Your task to perform on an android device: check battery use Image 0: 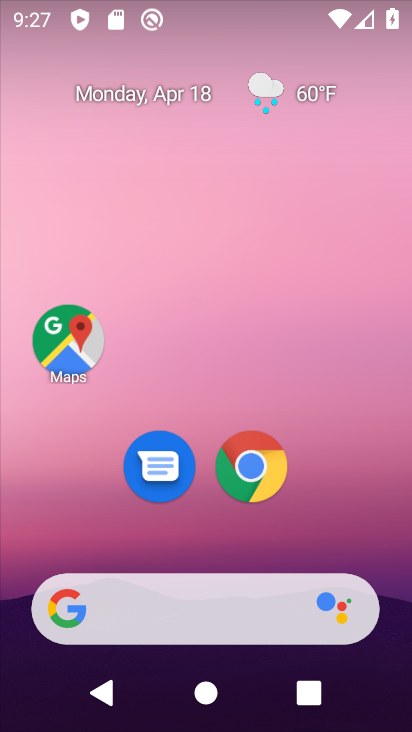
Step 0: drag from (226, 546) to (276, 15)
Your task to perform on an android device: check battery use Image 1: 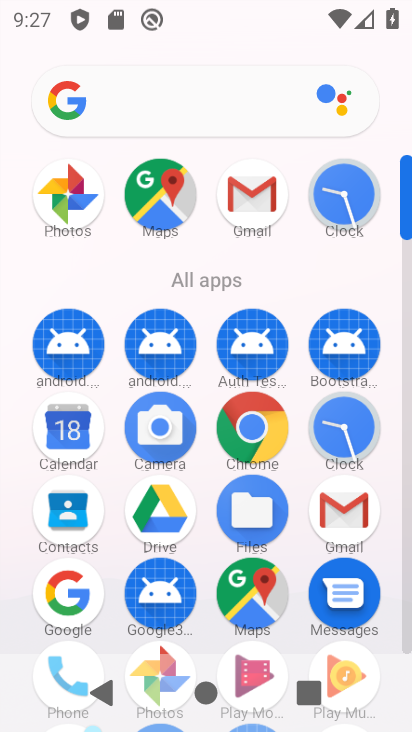
Step 1: drag from (297, 633) to (299, 245)
Your task to perform on an android device: check battery use Image 2: 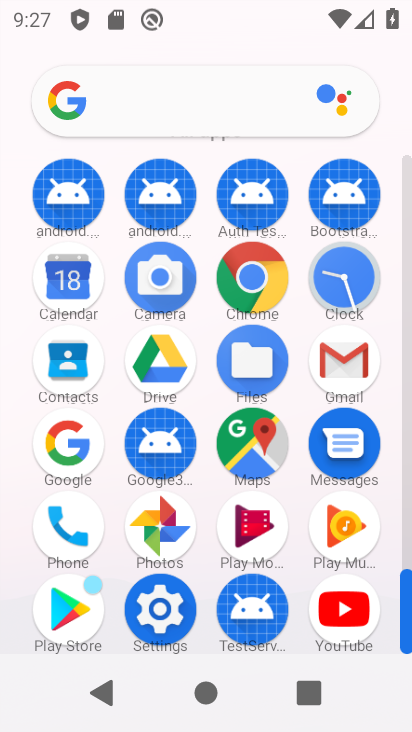
Step 2: click (169, 614)
Your task to perform on an android device: check battery use Image 3: 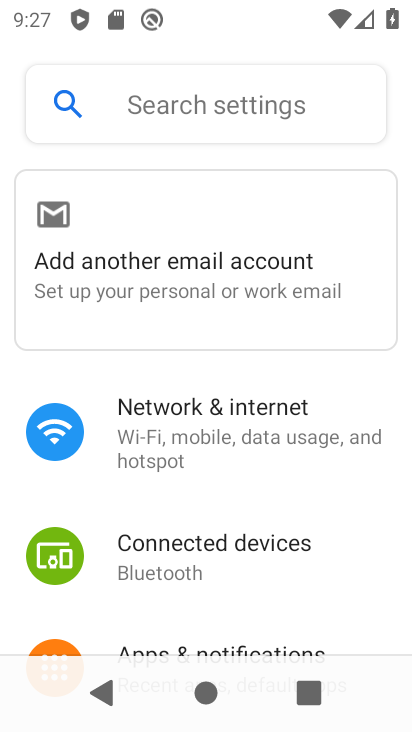
Step 3: drag from (200, 628) to (241, 258)
Your task to perform on an android device: check battery use Image 4: 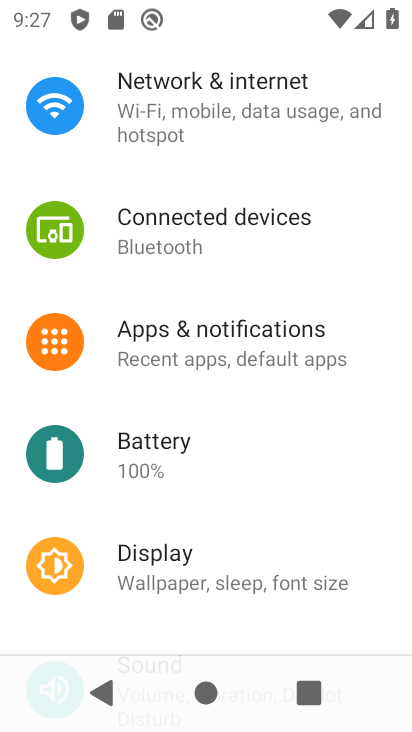
Step 4: click (218, 463)
Your task to perform on an android device: check battery use Image 5: 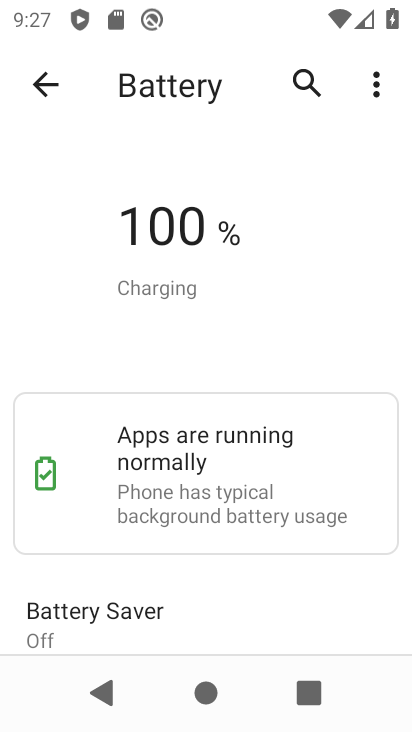
Step 5: drag from (198, 613) to (236, 196)
Your task to perform on an android device: check battery use Image 6: 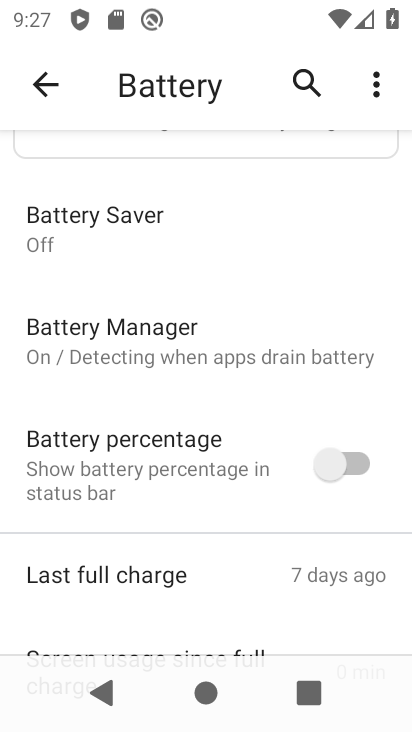
Step 6: drag from (172, 613) to (218, 243)
Your task to perform on an android device: check battery use Image 7: 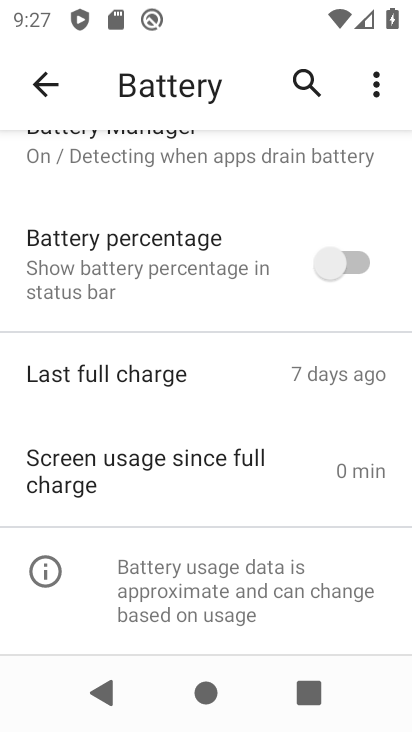
Step 7: click (187, 615)
Your task to perform on an android device: check battery use Image 8: 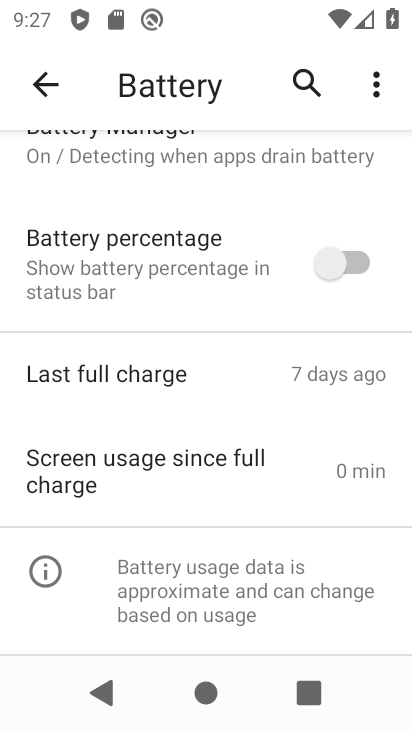
Step 8: click (40, 573)
Your task to perform on an android device: check battery use Image 9: 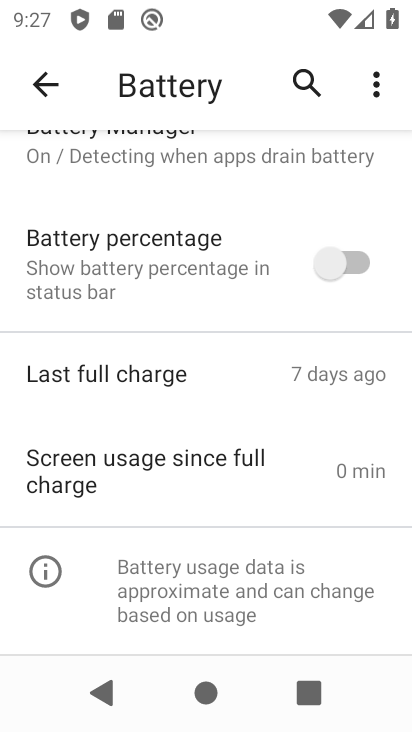
Step 9: task complete